Your task to perform on an android device: What's on my calendar today? Image 0: 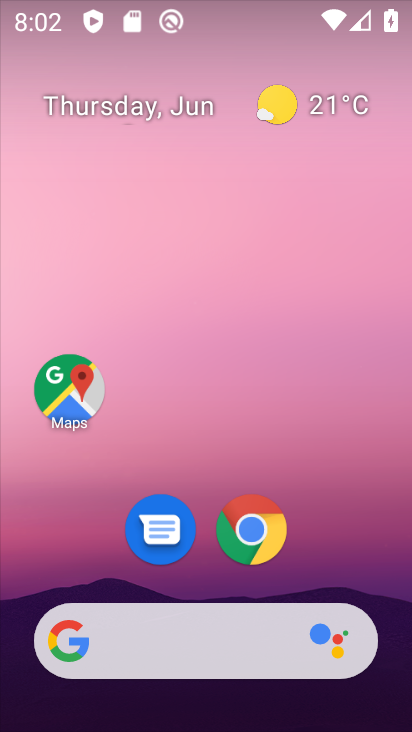
Step 0: drag from (329, 542) to (237, 30)
Your task to perform on an android device: What's on my calendar today? Image 1: 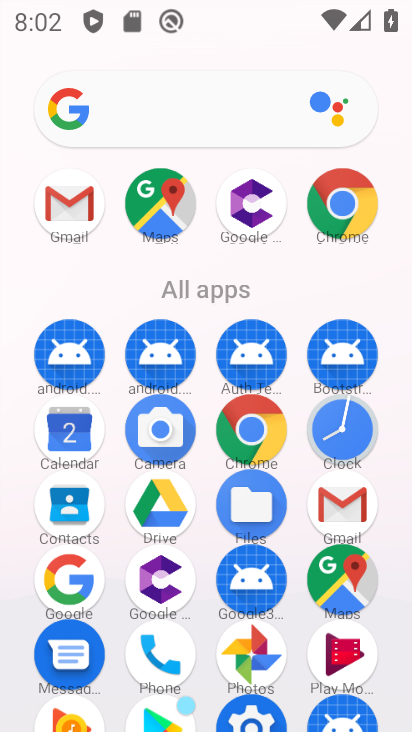
Step 1: click (62, 428)
Your task to perform on an android device: What's on my calendar today? Image 2: 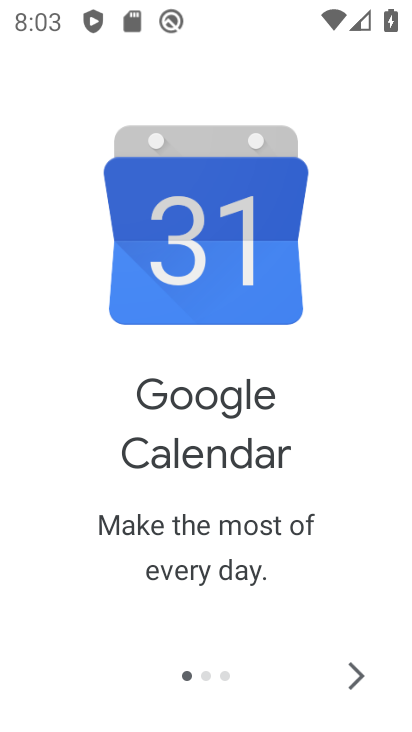
Step 2: click (357, 678)
Your task to perform on an android device: What's on my calendar today? Image 3: 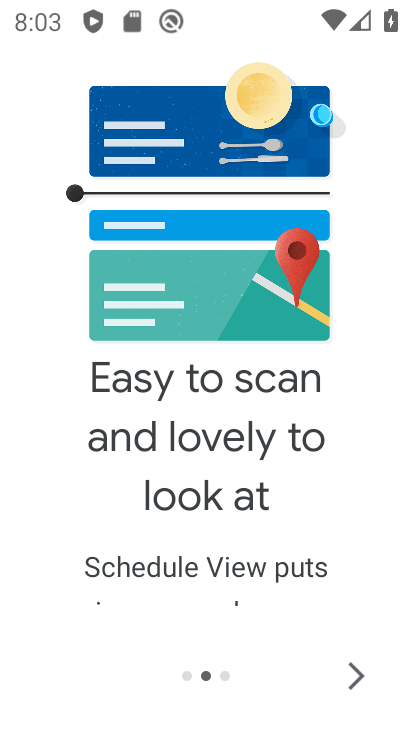
Step 3: click (357, 678)
Your task to perform on an android device: What's on my calendar today? Image 4: 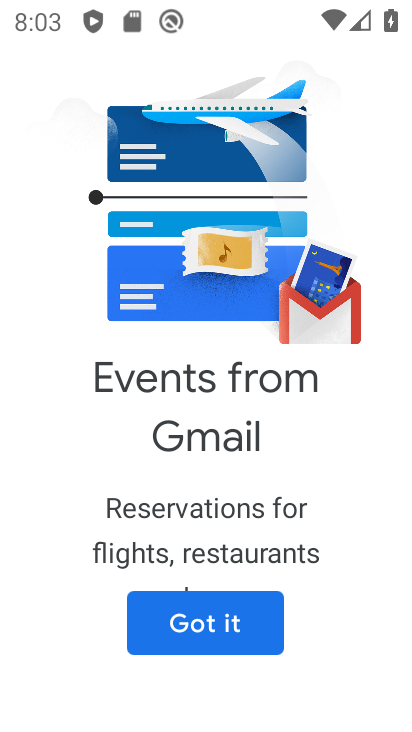
Step 4: click (258, 623)
Your task to perform on an android device: What's on my calendar today? Image 5: 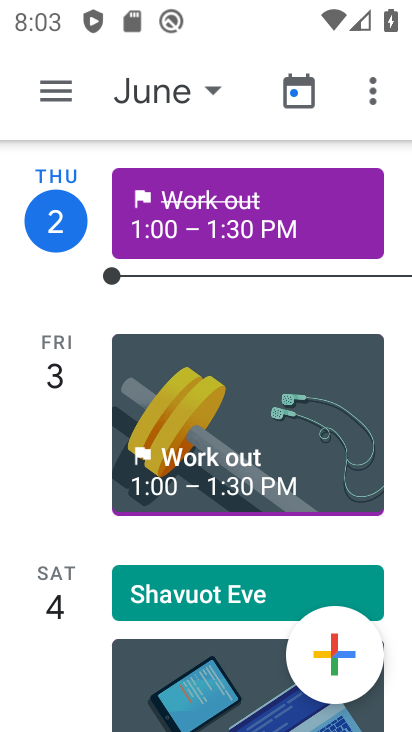
Step 5: click (57, 77)
Your task to perform on an android device: What's on my calendar today? Image 6: 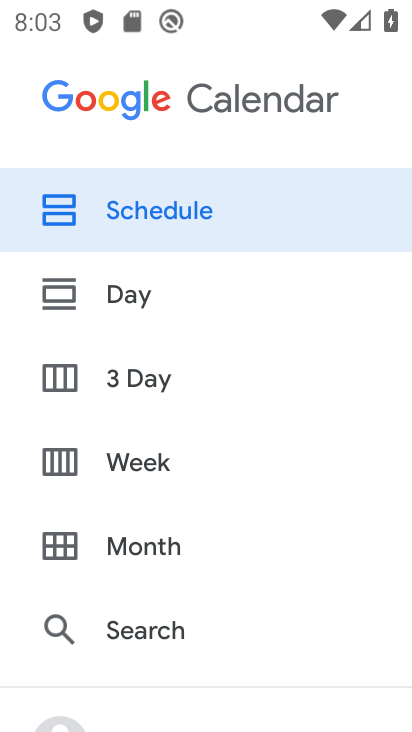
Step 6: click (121, 300)
Your task to perform on an android device: What's on my calendar today? Image 7: 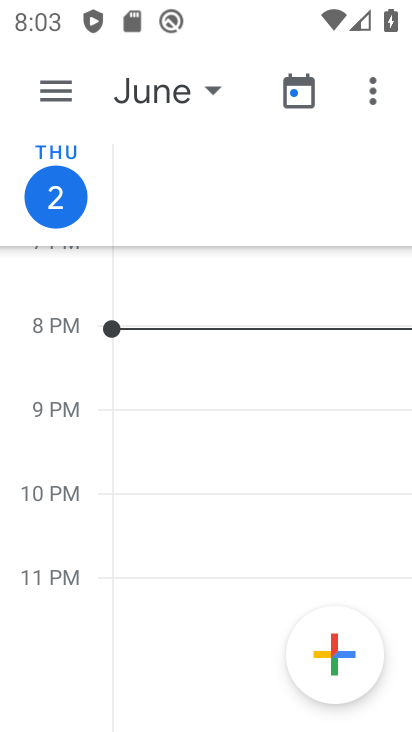
Step 7: task complete